Your task to perform on an android device: toggle show notifications on the lock screen Image 0: 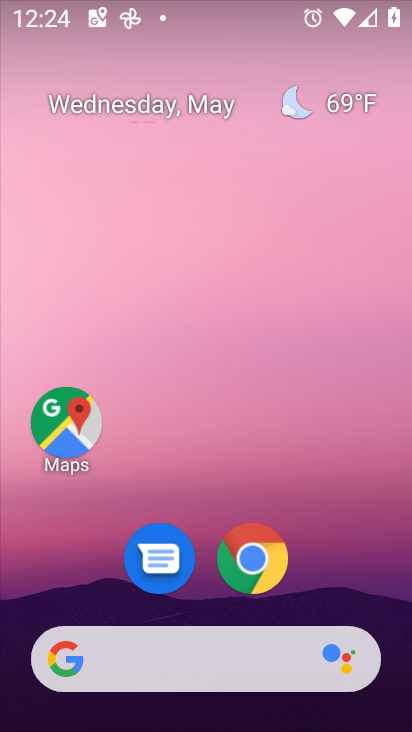
Step 0: drag from (387, 586) to (227, 37)
Your task to perform on an android device: toggle show notifications on the lock screen Image 1: 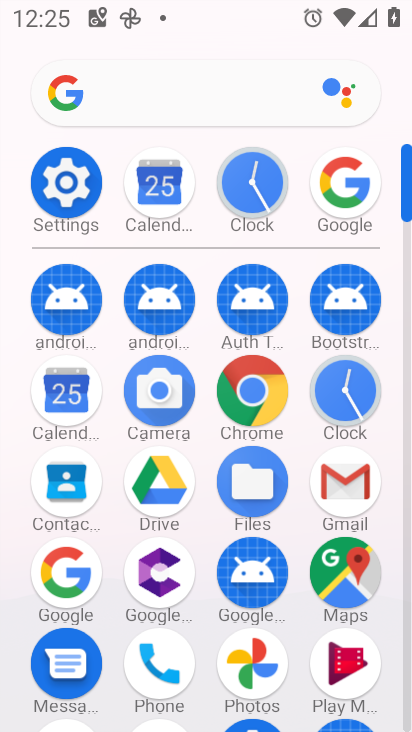
Step 1: click (81, 199)
Your task to perform on an android device: toggle show notifications on the lock screen Image 2: 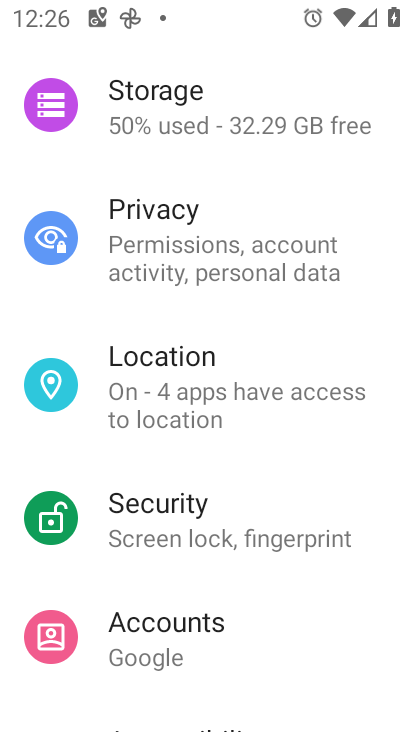
Step 2: drag from (209, 152) to (233, 618)
Your task to perform on an android device: toggle show notifications on the lock screen Image 3: 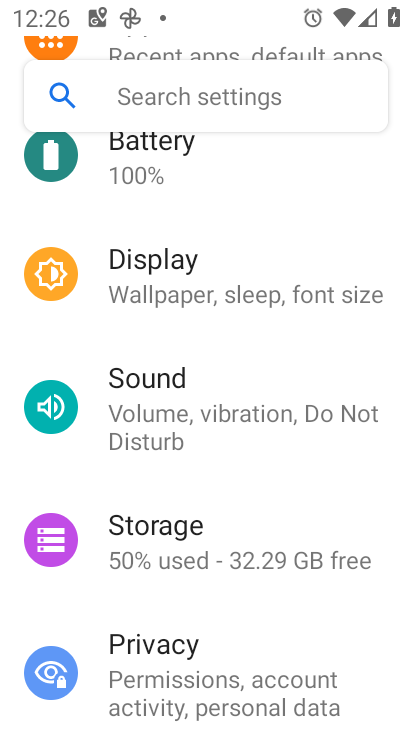
Step 3: drag from (200, 163) to (222, 658)
Your task to perform on an android device: toggle show notifications on the lock screen Image 4: 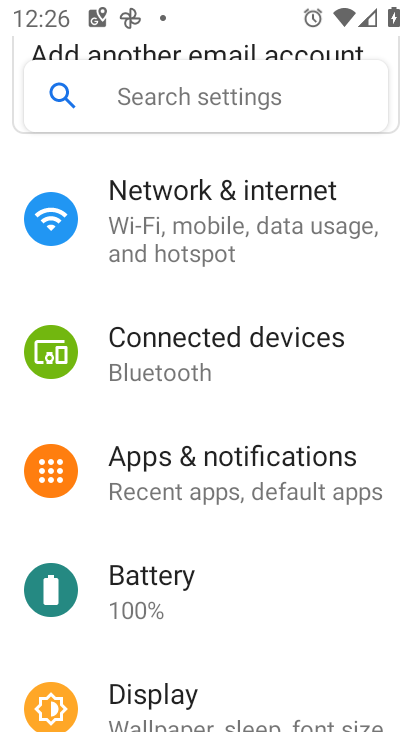
Step 4: click (229, 494)
Your task to perform on an android device: toggle show notifications on the lock screen Image 5: 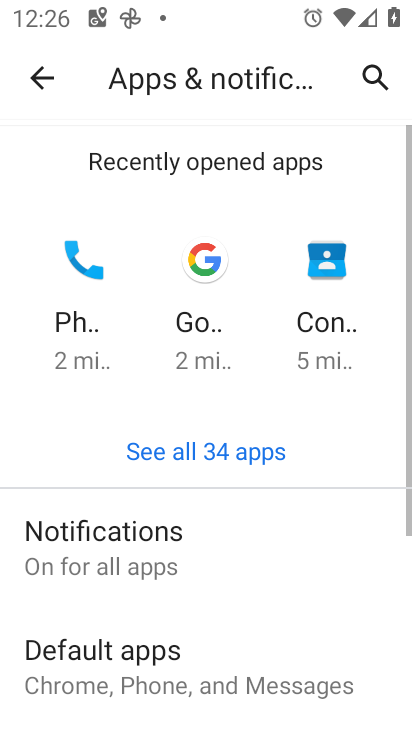
Step 5: click (104, 563)
Your task to perform on an android device: toggle show notifications on the lock screen Image 6: 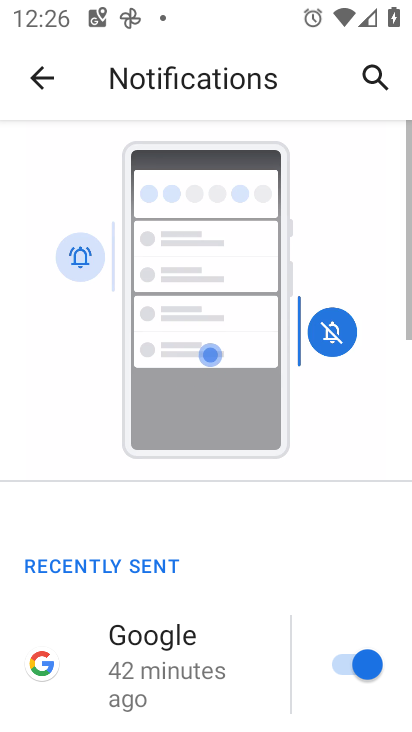
Step 6: drag from (129, 691) to (181, 77)
Your task to perform on an android device: toggle show notifications on the lock screen Image 7: 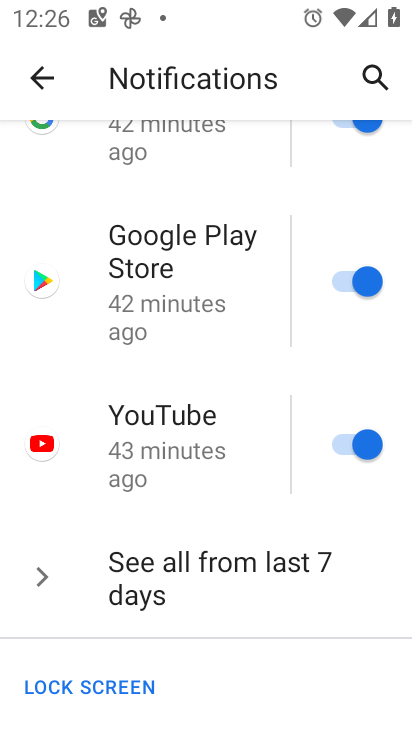
Step 7: drag from (156, 655) to (212, 126)
Your task to perform on an android device: toggle show notifications on the lock screen Image 8: 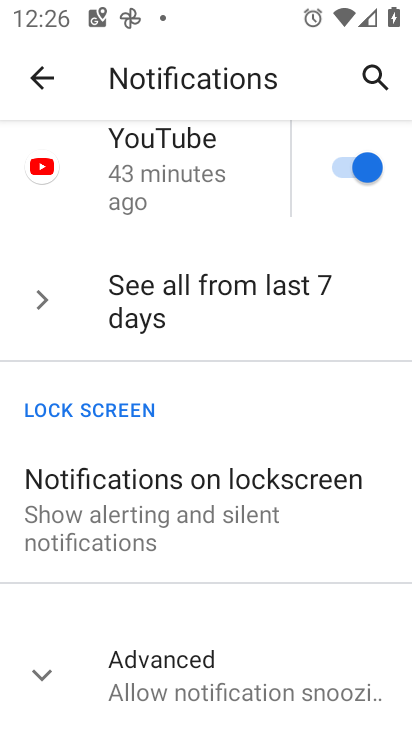
Step 8: click (123, 694)
Your task to perform on an android device: toggle show notifications on the lock screen Image 9: 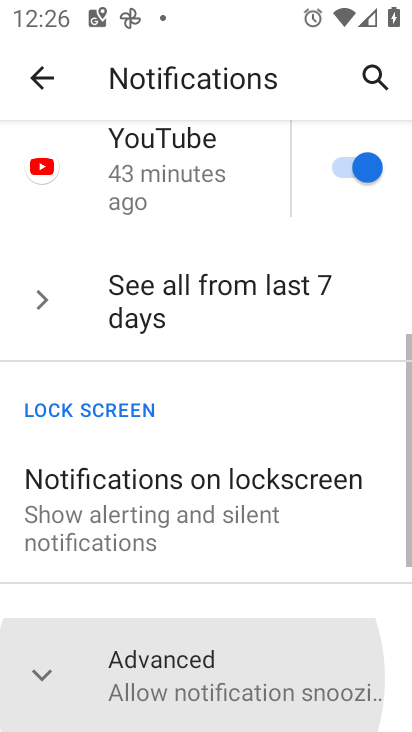
Step 9: drag from (131, 692) to (212, 361)
Your task to perform on an android device: toggle show notifications on the lock screen Image 10: 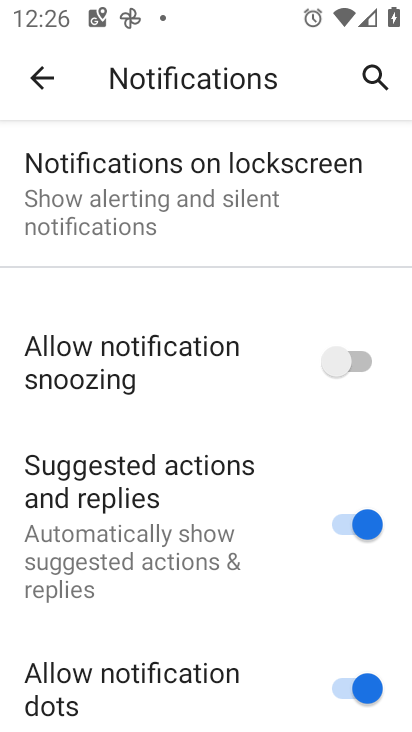
Step 10: click (202, 209)
Your task to perform on an android device: toggle show notifications on the lock screen Image 11: 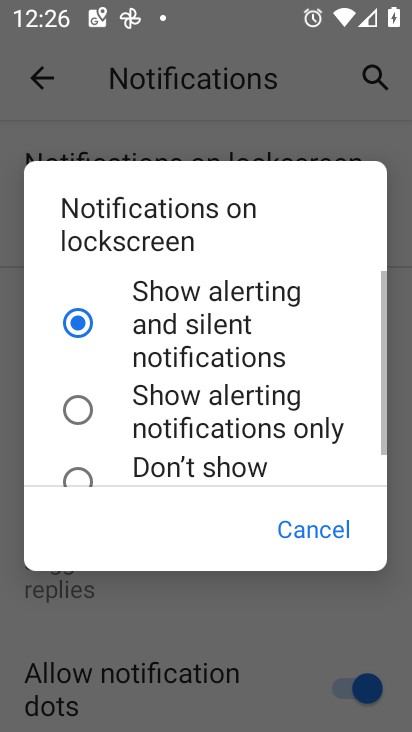
Step 11: drag from (121, 479) to (183, 196)
Your task to perform on an android device: toggle show notifications on the lock screen Image 12: 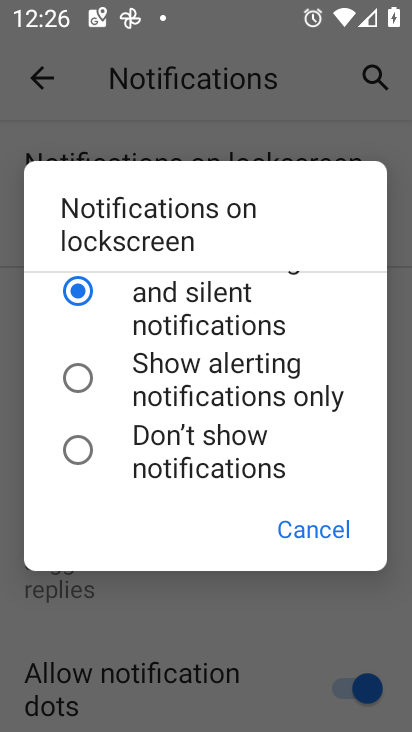
Step 12: click (98, 443)
Your task to perform on an android device: toggle show notifications on the lock screen Image 13: 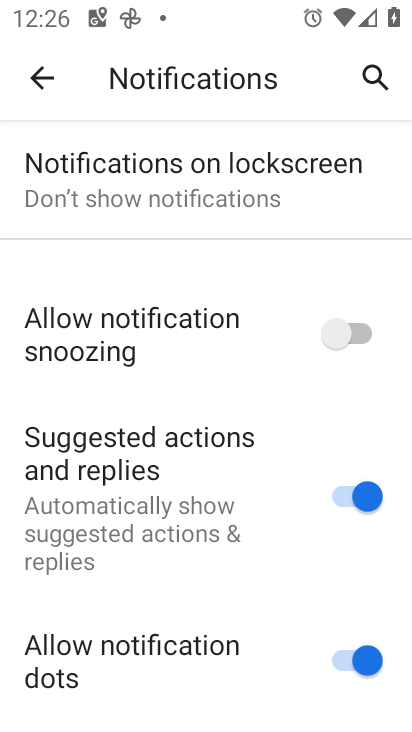
Step 13: task complete